Your task to perform on an android device: Go to settings Image 0: 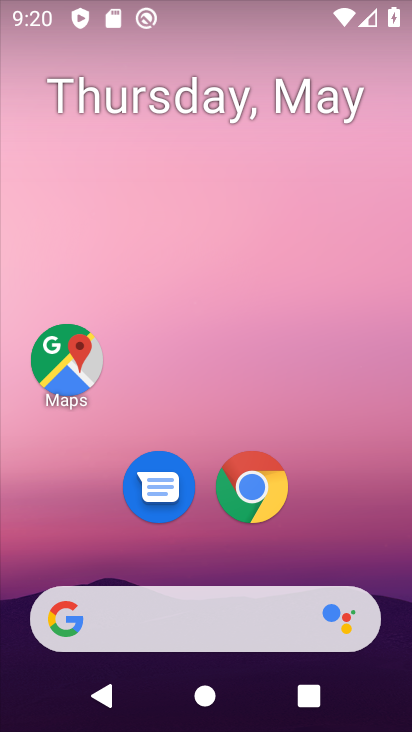
Step 0: drag from (230, 518) to (263, 118)
Your task to perform on an android device: Go to settings Image 1: 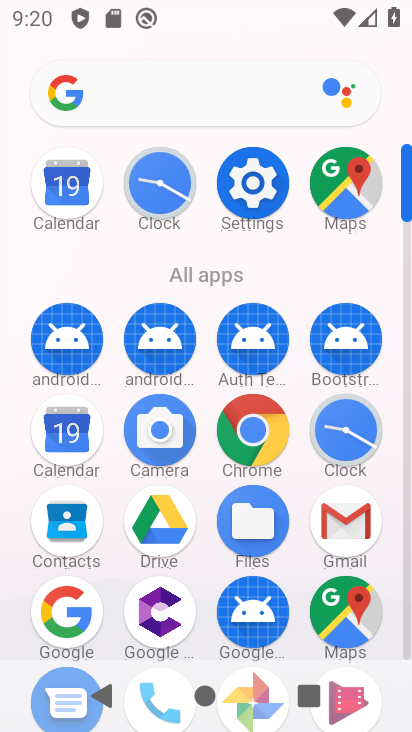
Step 1: click (258, 170)
Your task to perform on an android device: Go to settings Image 2: 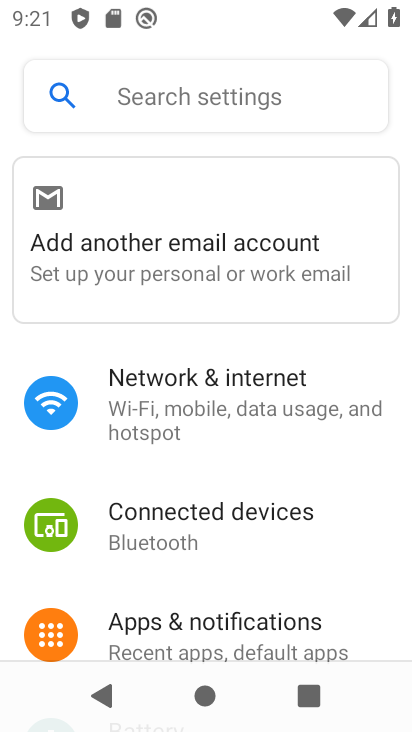
Step 2: task complete